Your task to perform on an android device: Is it going to rain this weekend? Image 0: 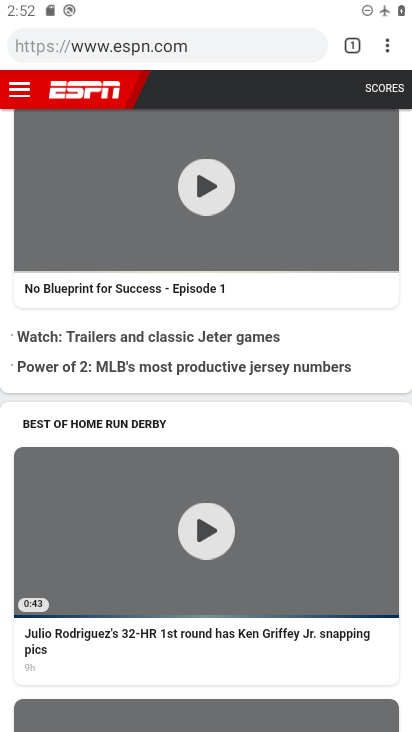
Step 0: press home button
Your task to perform on an android device: Is it going to rain this weekend? Image 1: 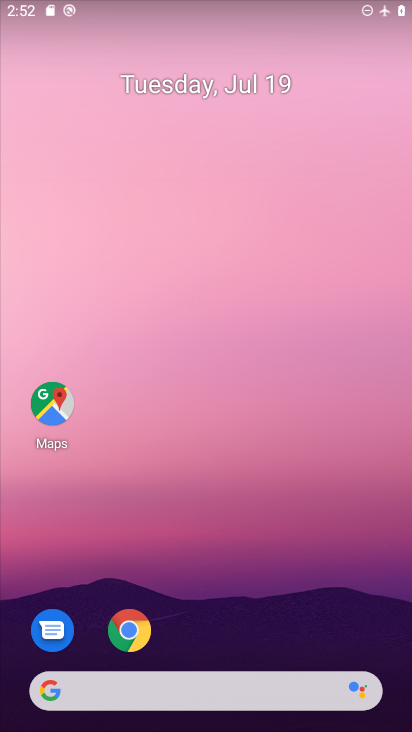
Step 1: drag from (5, 276) to (411, 305)
Your task to perform on an android device: Is it going to rain this weekend? Image 2: 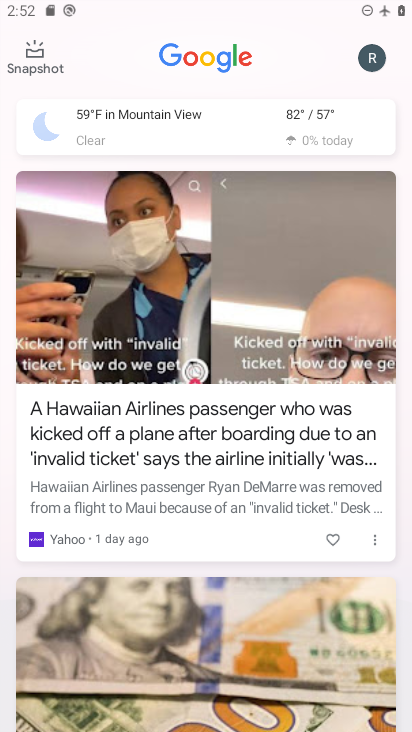
Step 2: click (306, 114)
Your task to perform on an android device: Is it going to rain this weekend? Image 3: 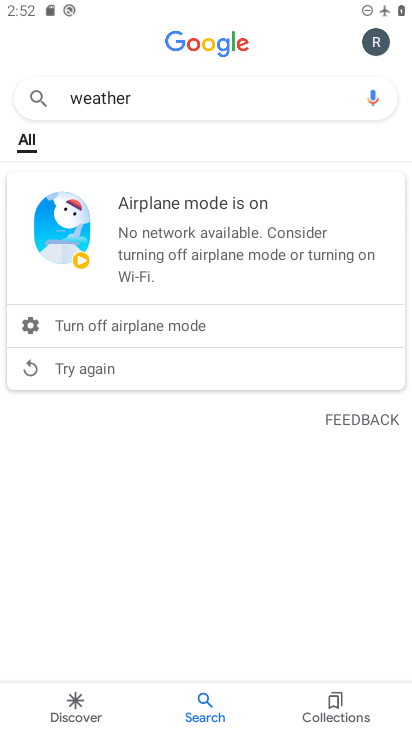
Step 3: click (22, 371)
Your task to perform on an android device: Is it going to rain this weekend? Image 4: 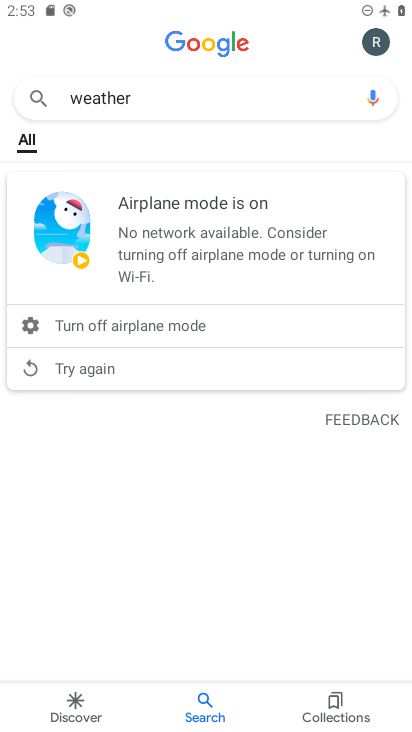
Step 4: task complete